Your task to perform on an android device: Open display settings Image 0: 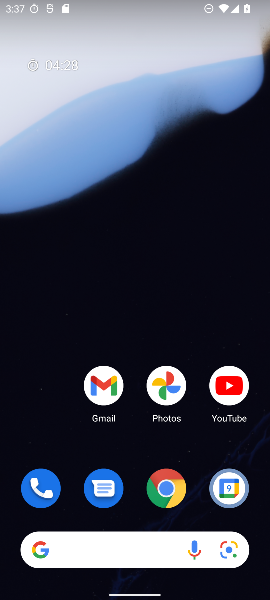
Step 0: drag from (135, 456) to (188, 139)
Your task to perform on an android device: Open display settings Image 1: 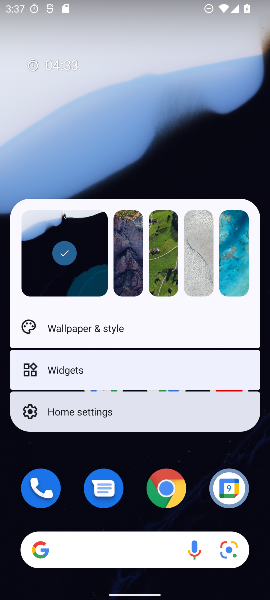
Step 1: press home button
Your task to perform on an android device: Open display settings Image 2: 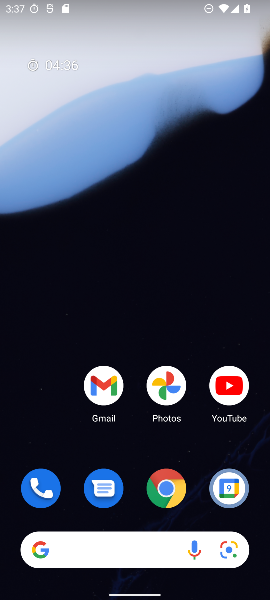
Step 2: drag from (51, 453) to (90, 263)
Your task to perform on an android device: Open display settings Image 3: 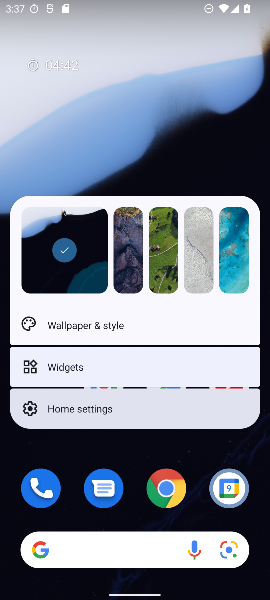
Step 3: press home button
Your task to perform on an android device: Open display settings Image 4: 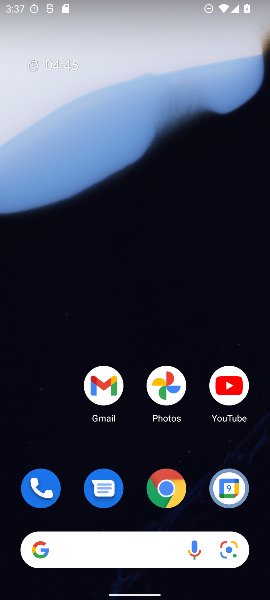
Step 4: drag from (73, 513) to (37, 142)
Your task to perform on an android device: Open display settings Image 5: 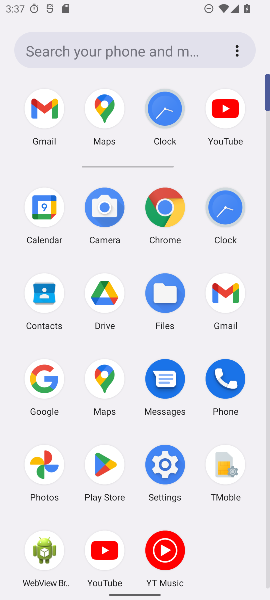
Step 5: click (167, 443)
Your task to perform on an android device: Open display settings Image 6: 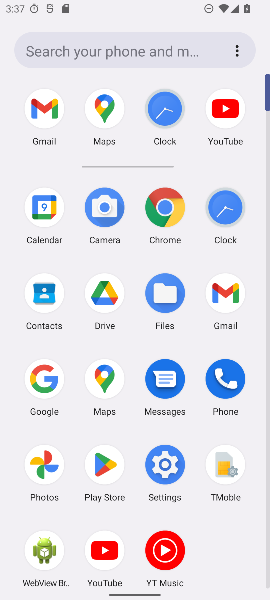
Step 6: click (168, 456)
Your task to perform on an android device: Open display settings Image 7: 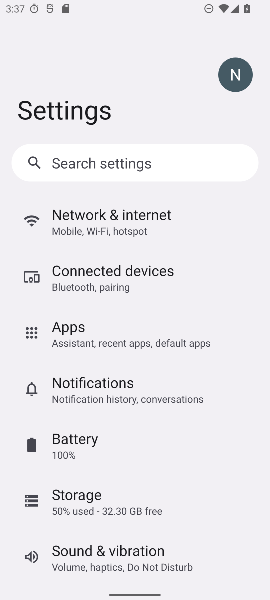
Step 7: drag from (226, 553) to (231, 254)
Your task to perform on an android device: Open display settings Image 8: 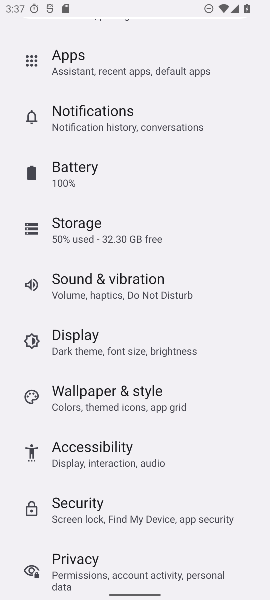
Step 8: click (186, 356)
Your task to perform on an android device: Open display settings Image 9: 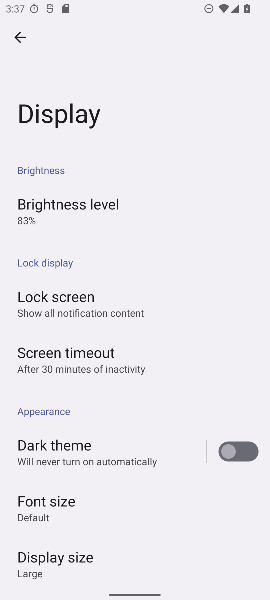
Step 9: task complete